Your task to perform on an android device: open app "Microsoft Excel" Image 0: 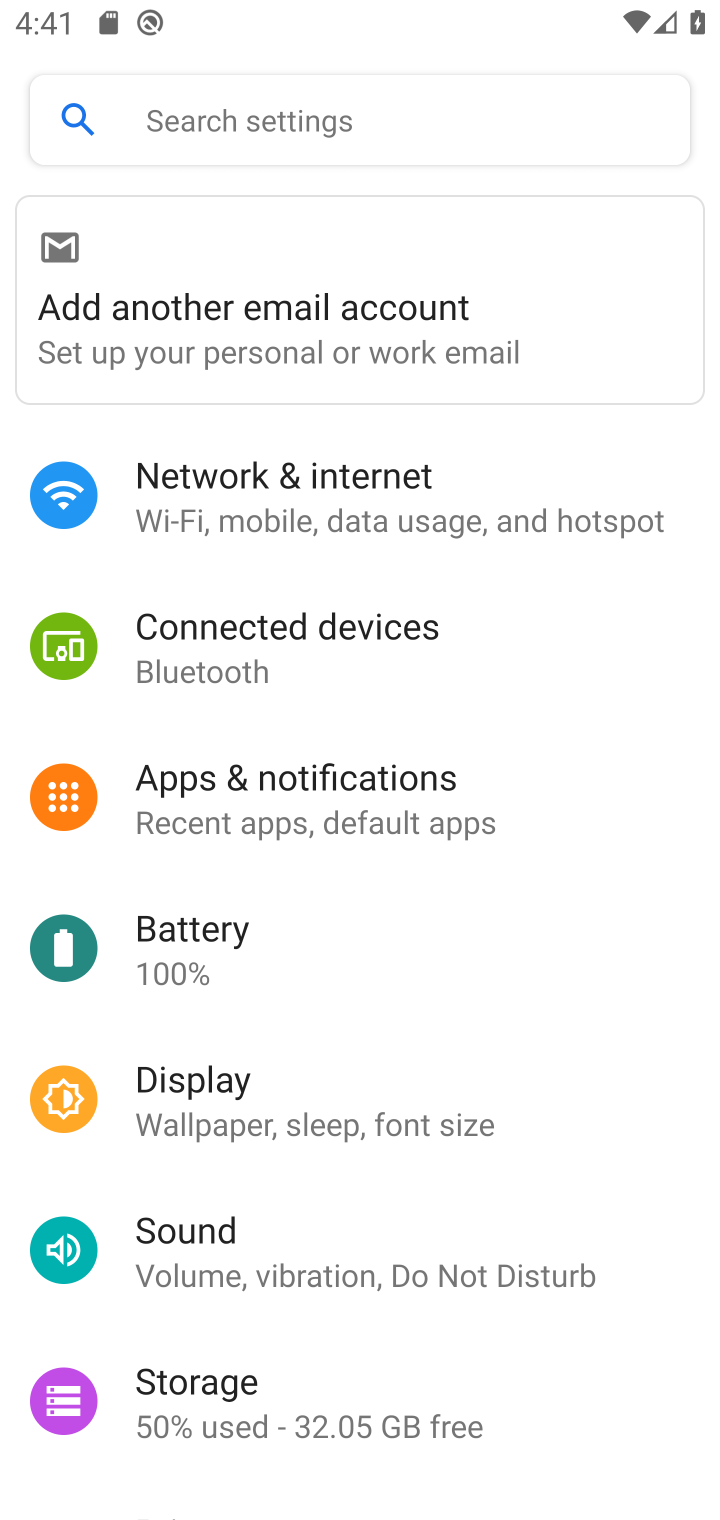
Step 0: press home button
Your task to perform on an android device: open app "Microsoft Excel" Image 1: 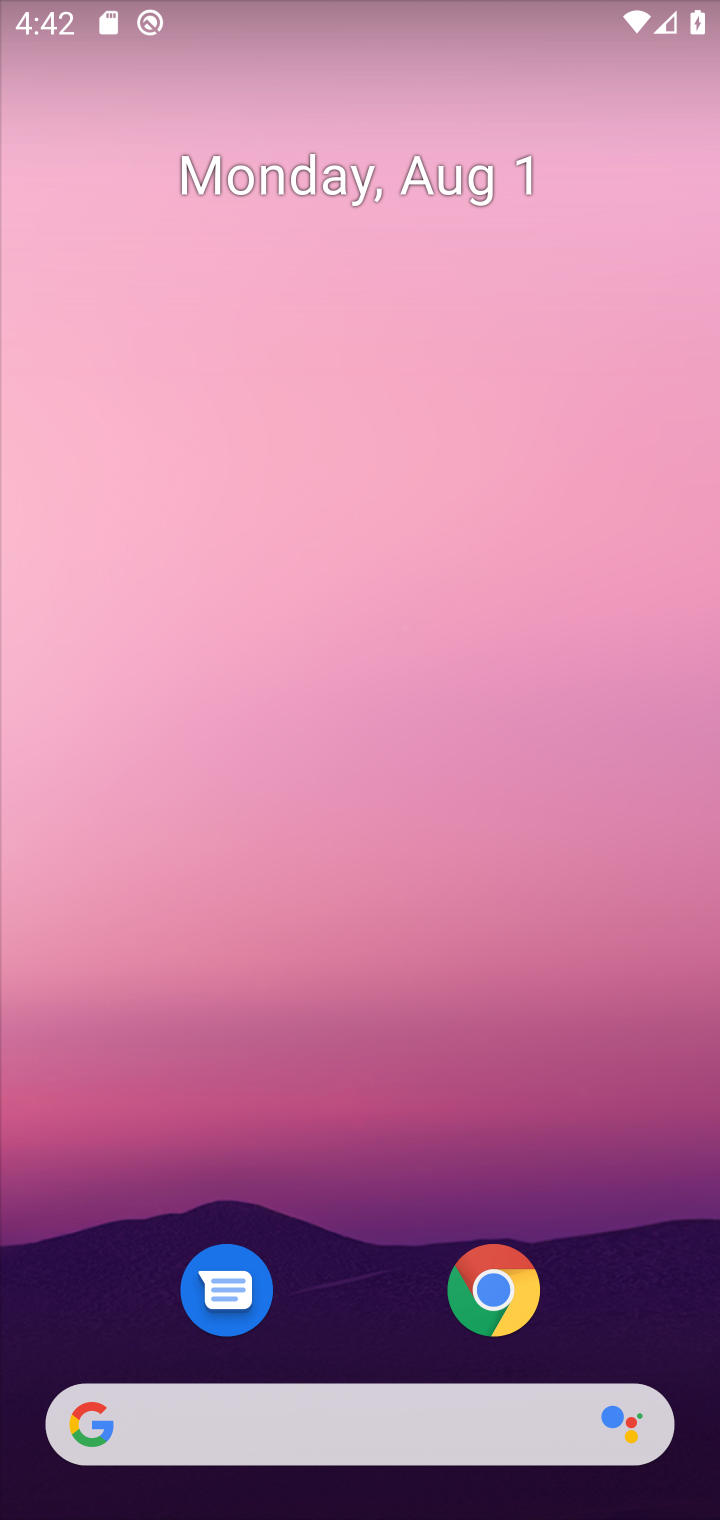
Step 1: drag from (356, 1414) to (359, 159)
Your task to perform on an android device: open app "Microsoft Excel" Image 2: 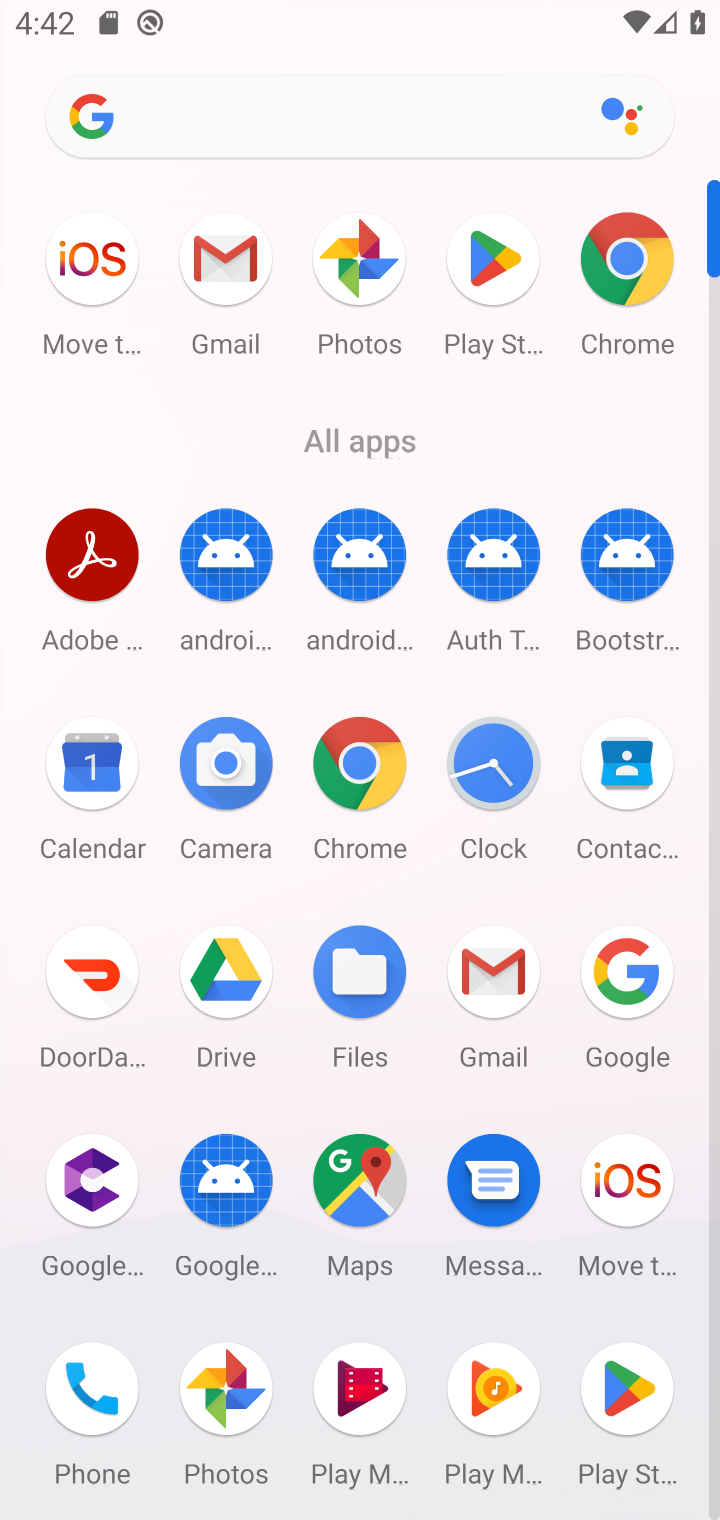
Step 2: drag from (647, 1277) to (625, 603)
Your task to perform on an android device: open app "Microsoft Excel" Image 3: 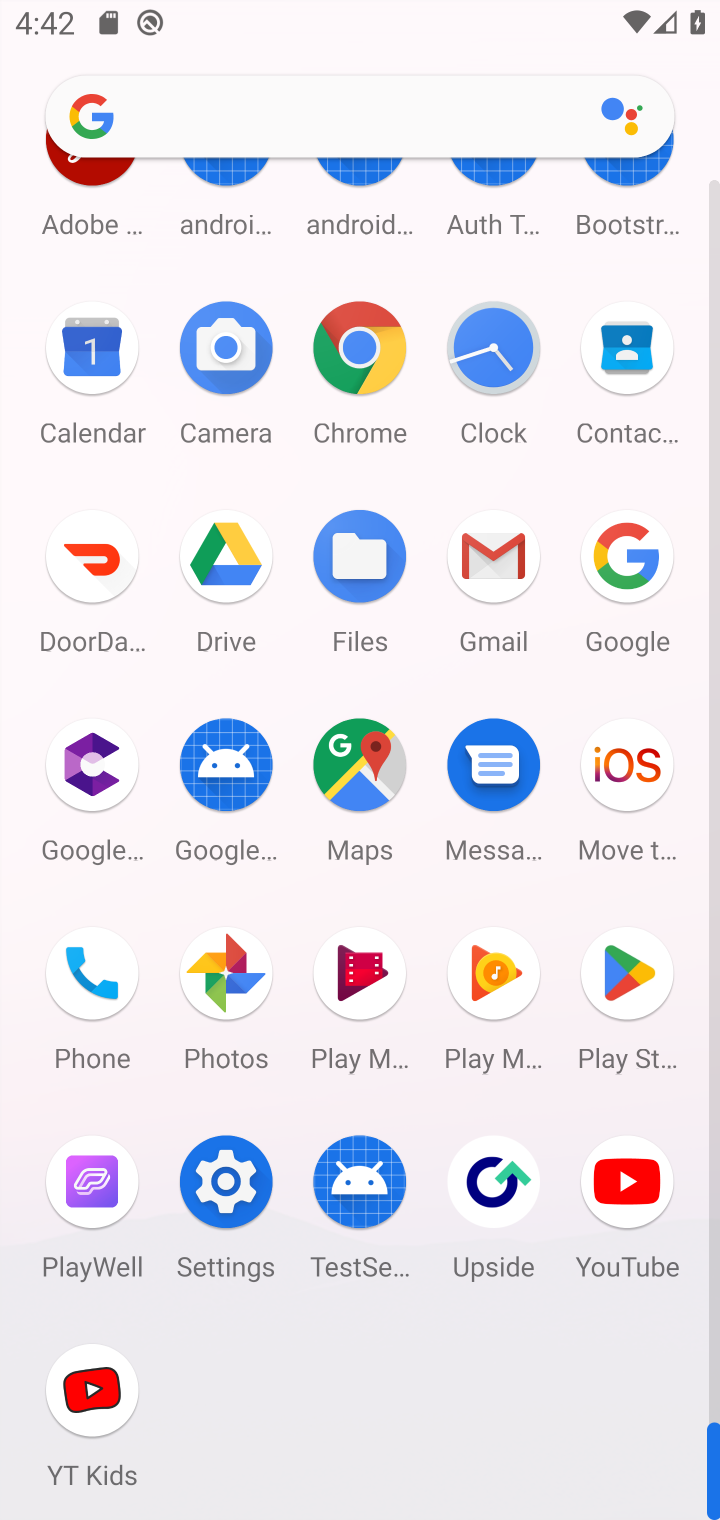
Step 3: click (626, 939)
Your task to perform on an android device: open app "Microsoft Excel" Image 4: 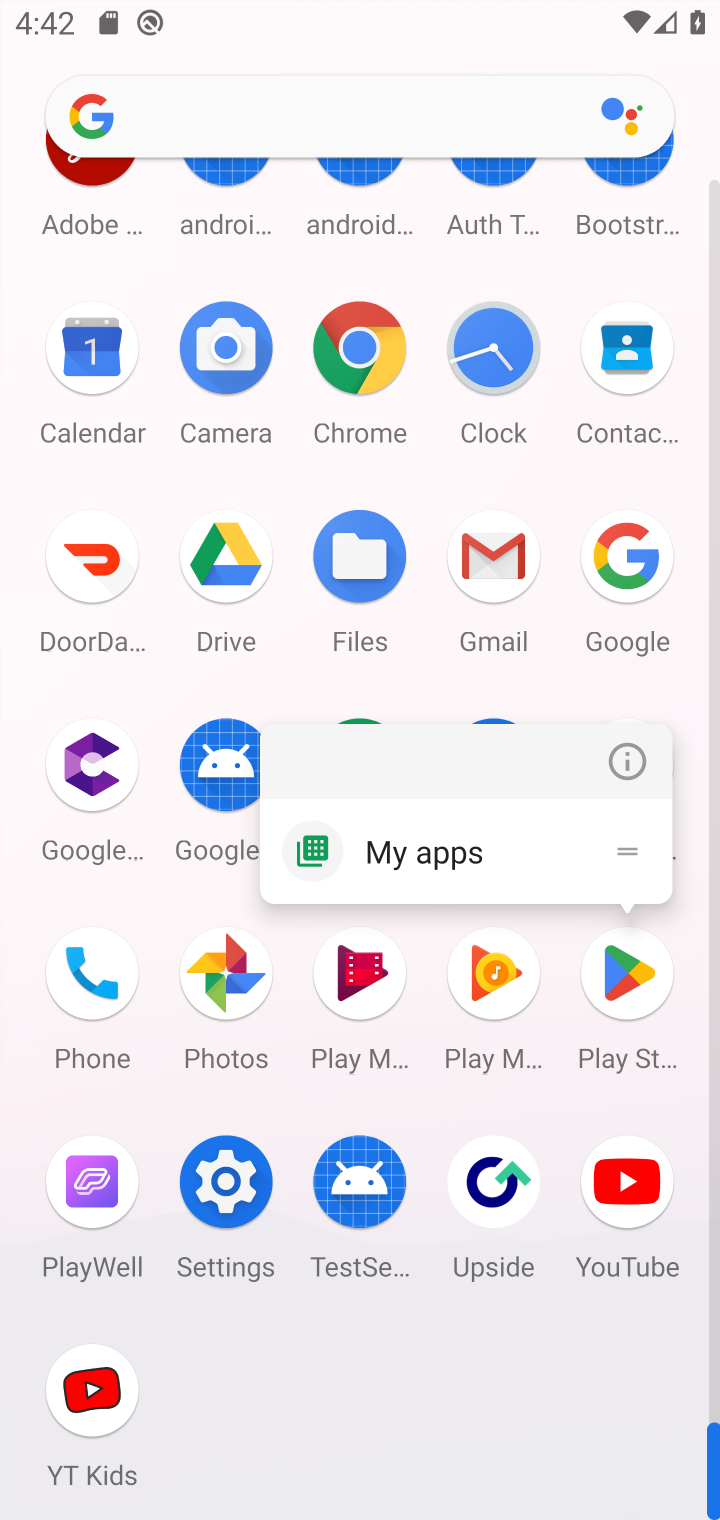
Step 4: click (572, 1330)
Your task to perform on an android device: open app "Microsoft Excel" Image 5: 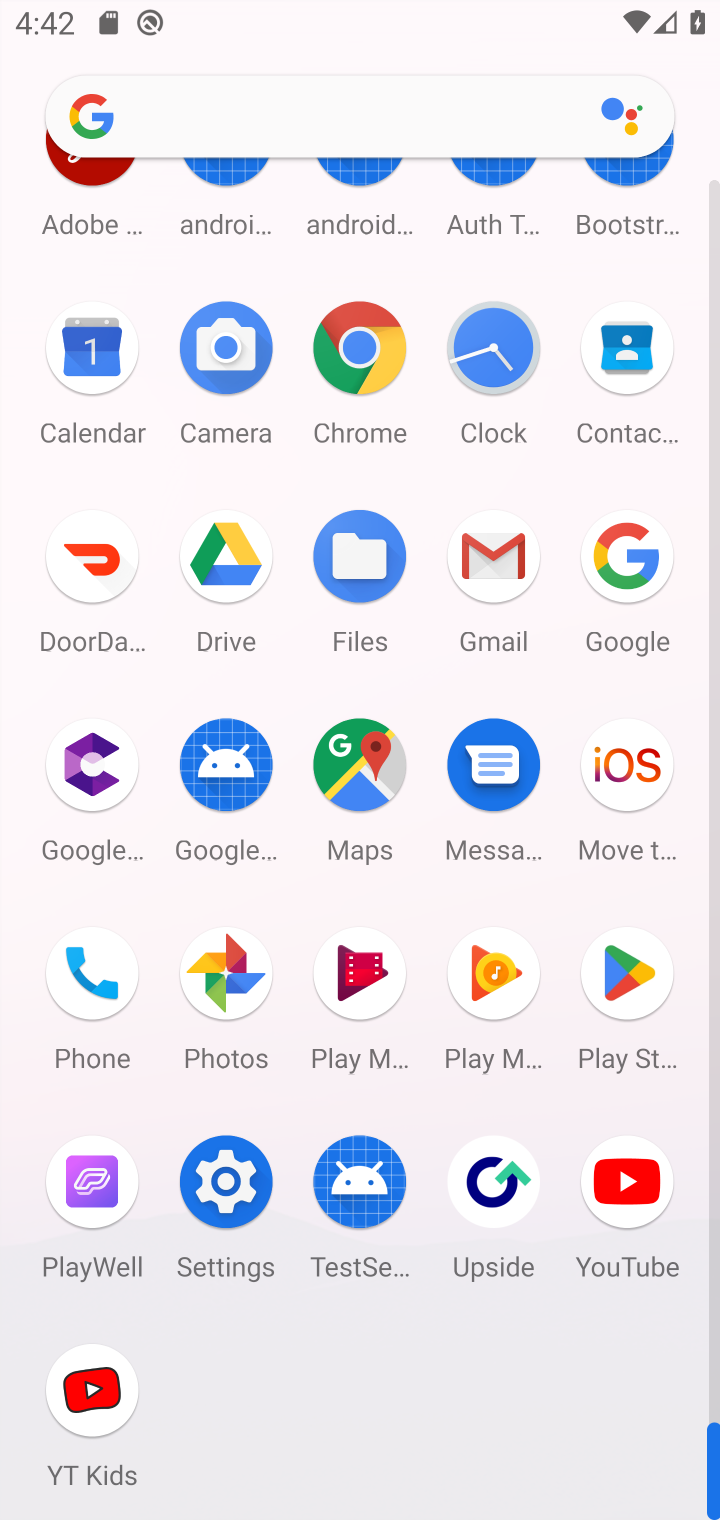
Step 5: click (634, 962)
Your task to perform on an android device: open app "Microsoft Excel" Image 6: 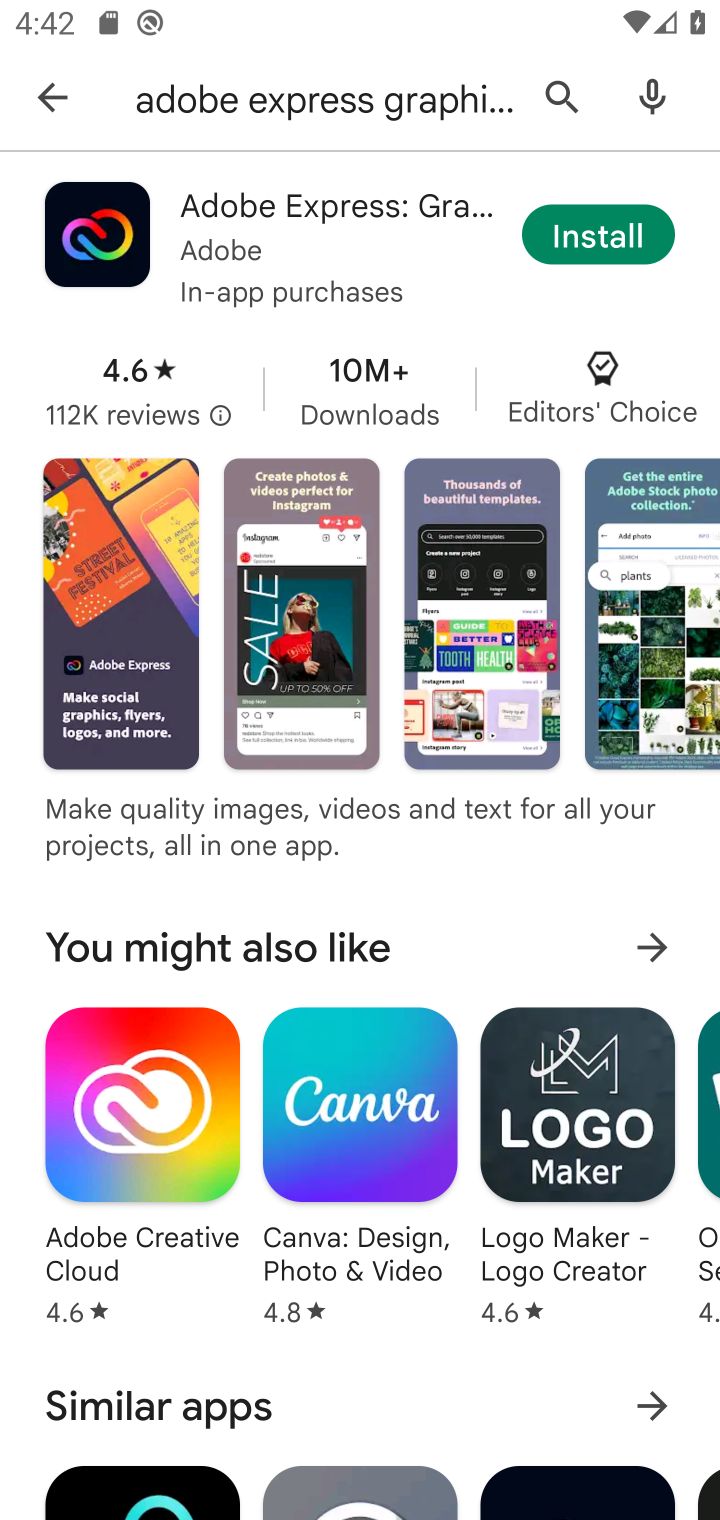
Step 6: click (554, 87)
Your task to perform on an android device: open app "Microsoft Excel" Image 7: 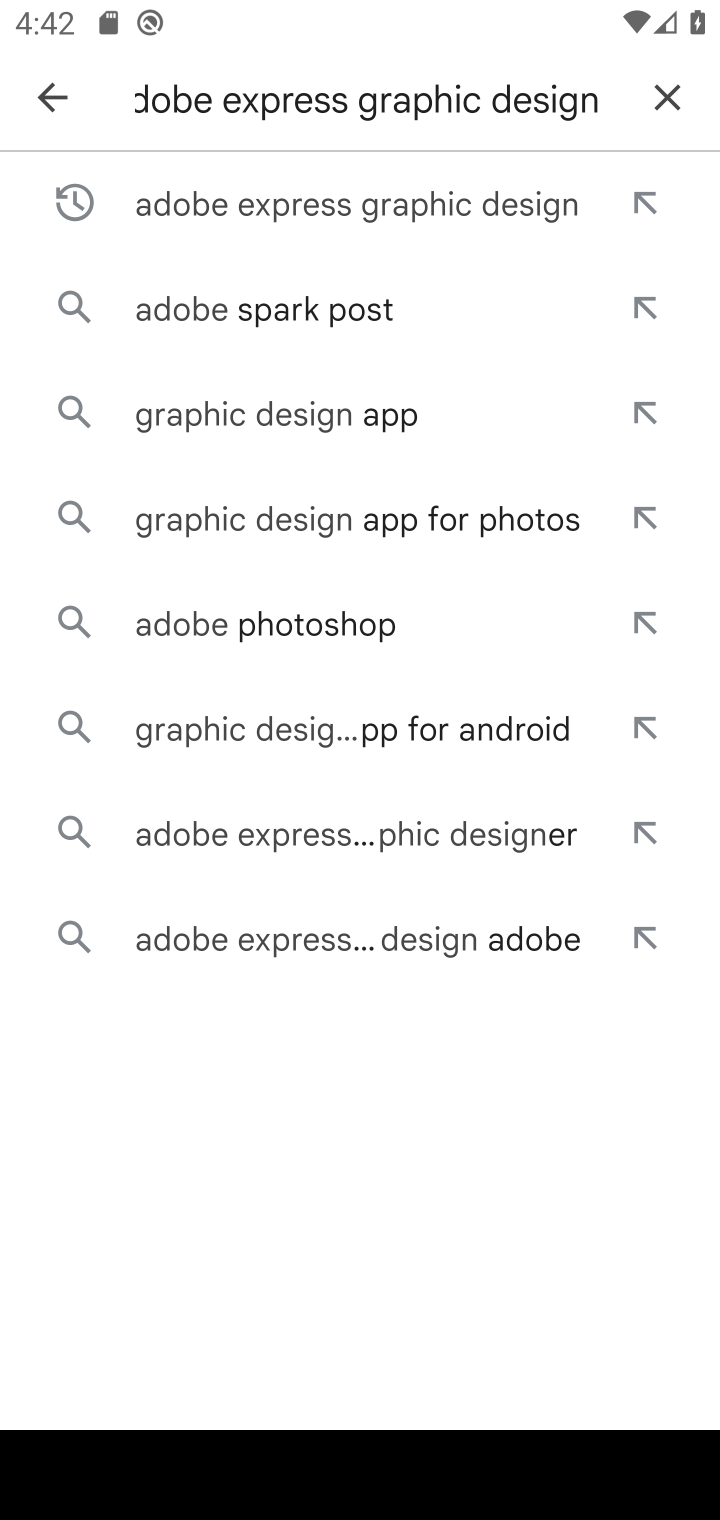
Step 7: click (662, 104)
Your task to perform on an android device: open app "Microsoft Excel" Image 8: 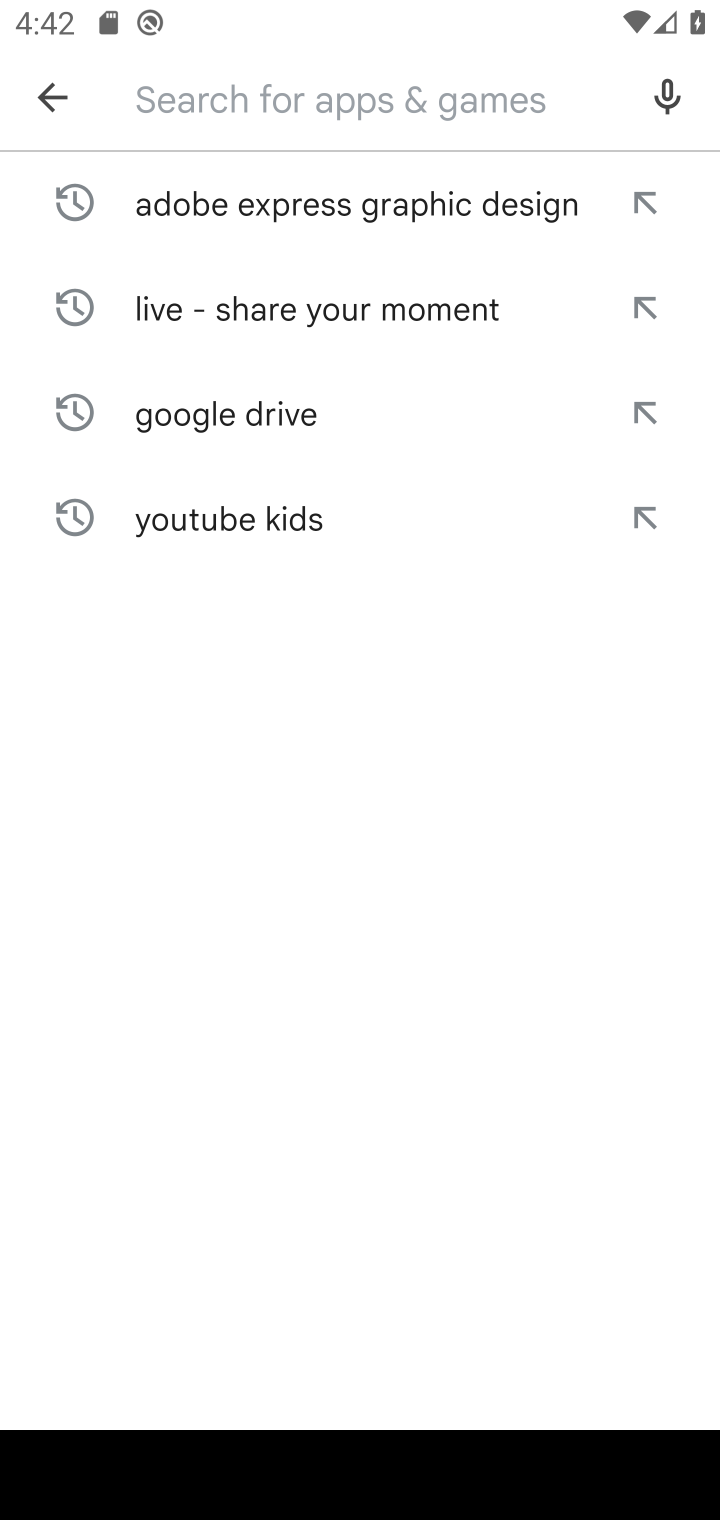
Step 8: type "microsoft excel"
Your task to perform on an android device: open app "Microsoft Excel" Image 9: 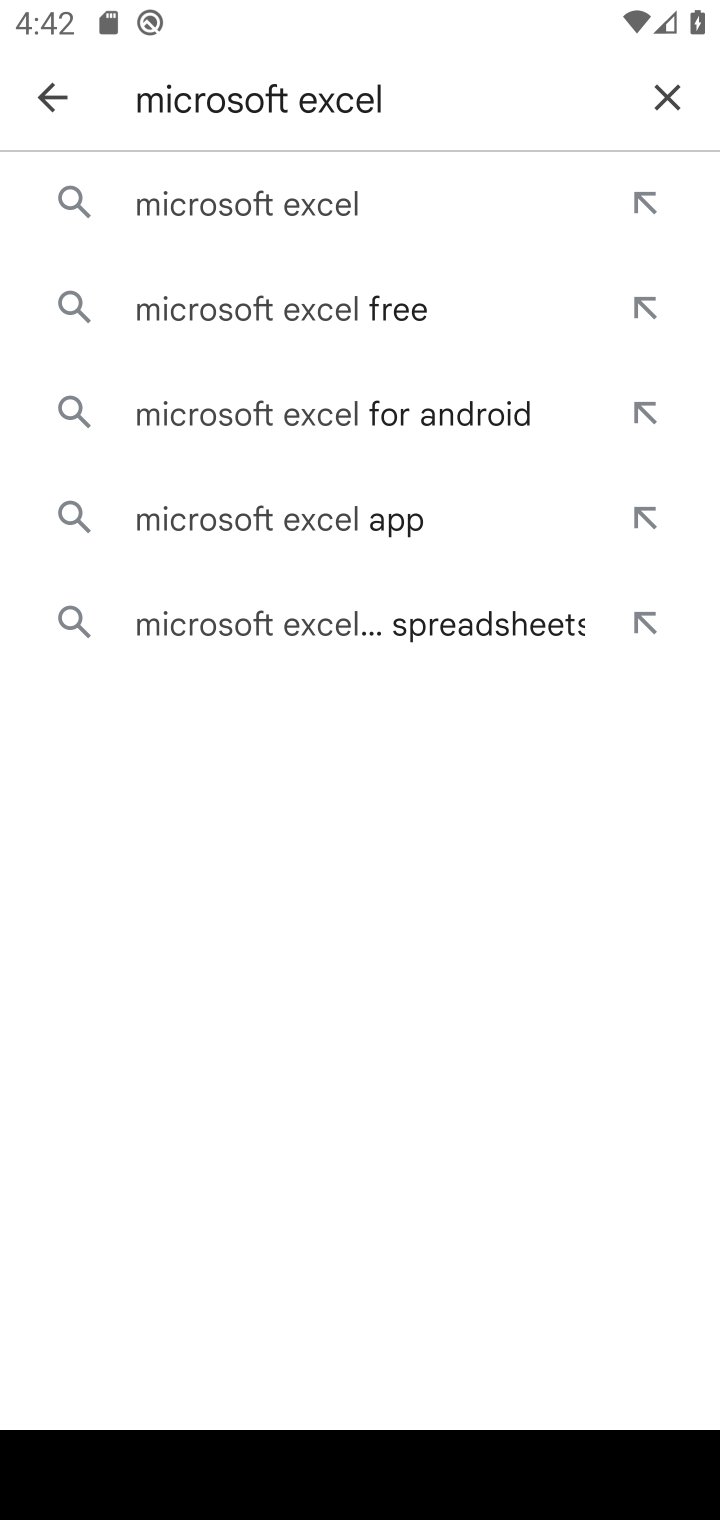
Step 9: click (299, 228)
Your task to perform on an android device: open app "Microsoft Excel" Image 10: 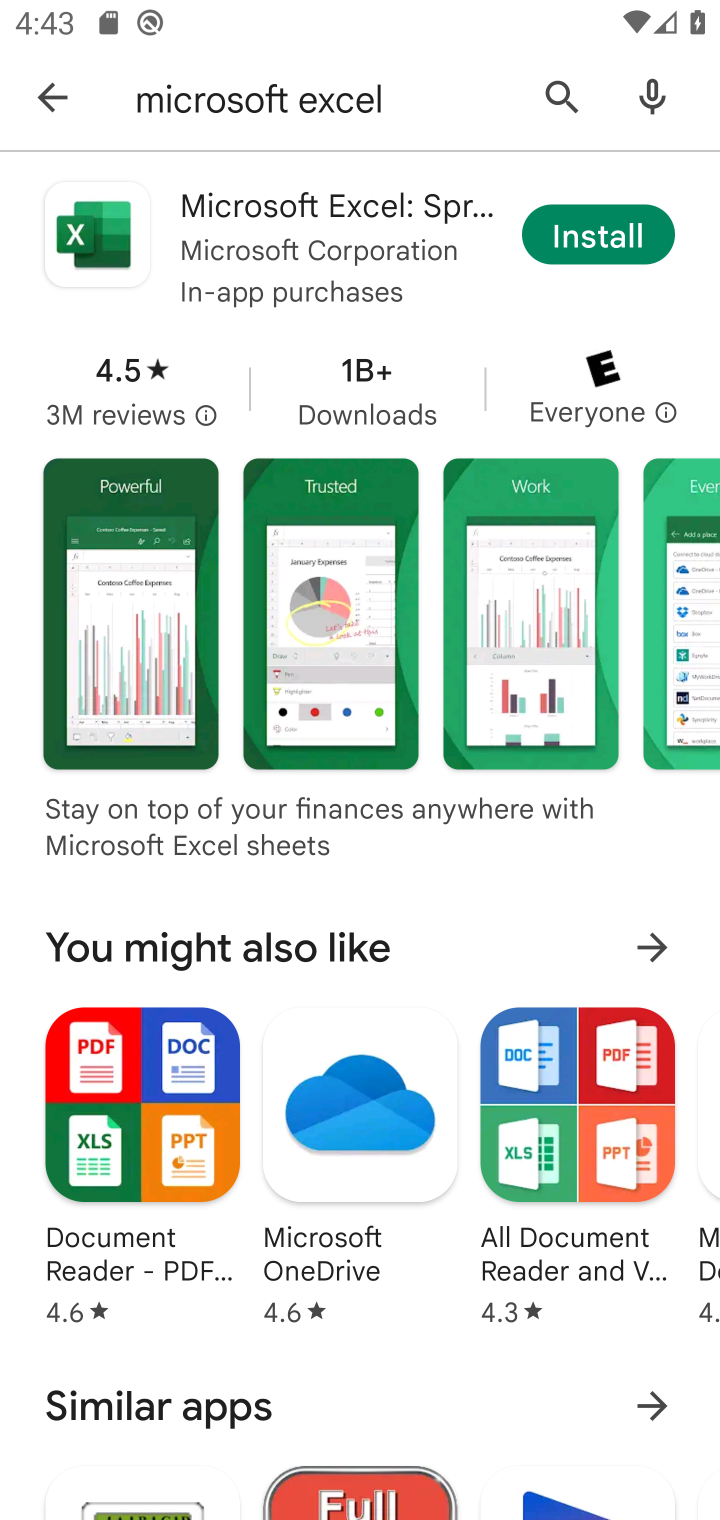
Step 10: task complete